Your task to perform on an android device: change alarm snooze length Image 0: 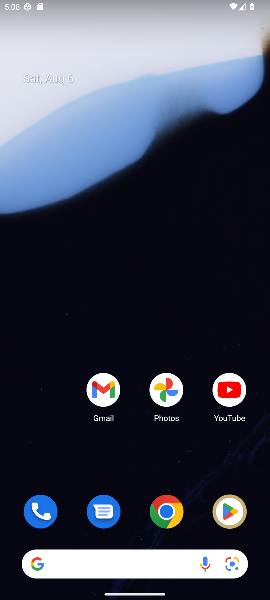
Step 0: drag from (136, 482) to (209, 25)
Your task to perform on an android device: change alarm snooze length Image 1: 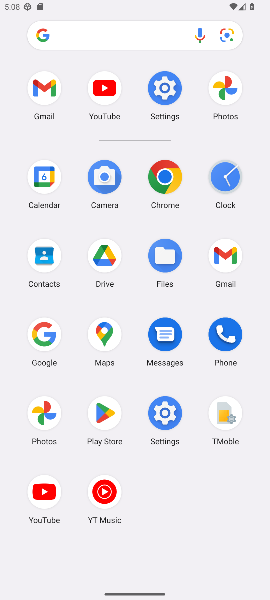
Step 1: click (233, 179)
Your task to perform on an android device: change alarm snooze length Image 2: 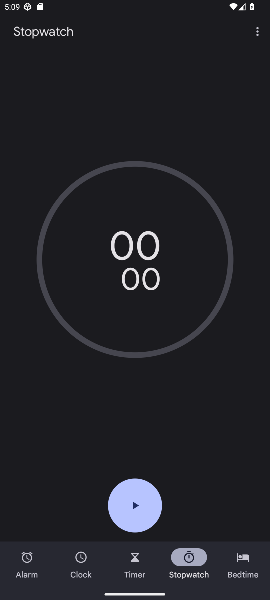
Step 2: click (262, 34)
Your task to perform on an android device: change alarm snooze length Image 3: 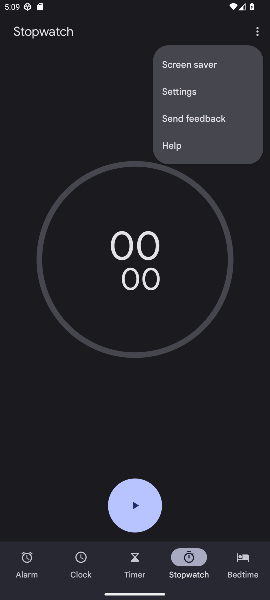
Step 3: click (175, 91)
Your task to perform on an android device: change alarm snooze length Image 4: 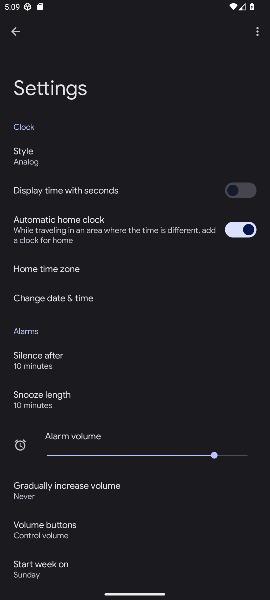
Step 4: drag from (43, 360) to (73, 242)
Your task to perform on an android device: change alarm snooze length Image 5: 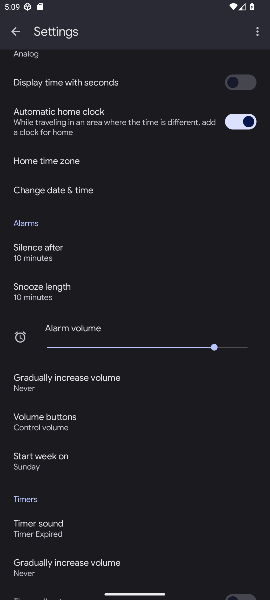
Step 5: click (50, 288)
Your task to perform on an android device: change alarm snooze length Image 6: 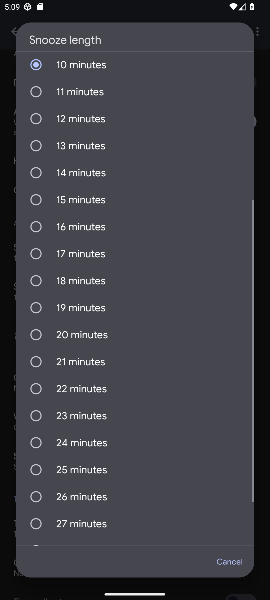
Step 6: click (48, 292)
Your task to perform on an android device: change alarm snooze length Image 7: 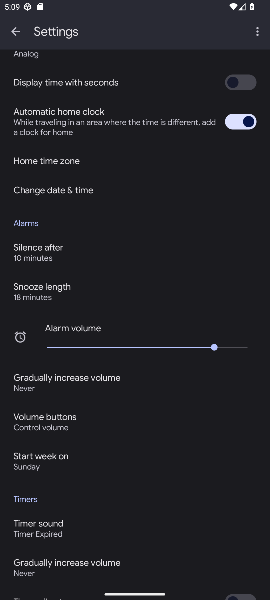
Step 7: task complete